Your task to perform on an android device: empty trash in the gmail app Image 0: 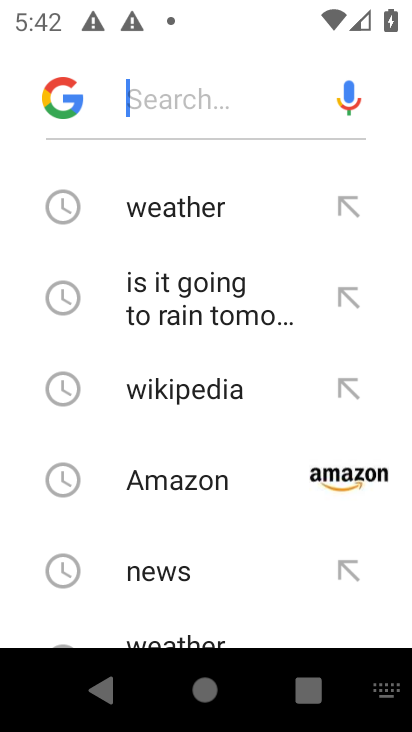
Step 0: press home button
Your task to perform on an android device: empty trash in the gmail app Image 1: 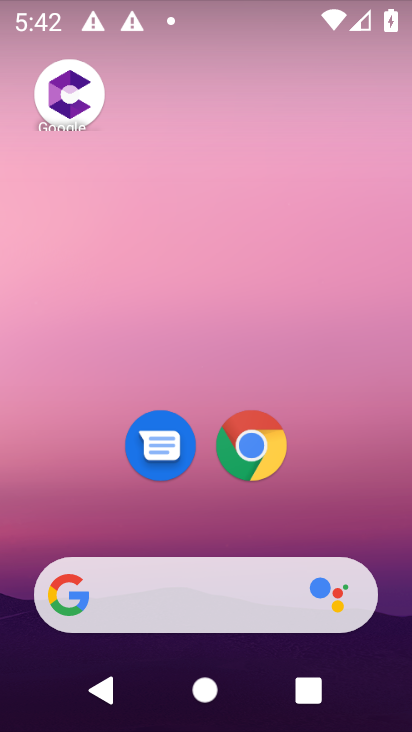
Step 1: click (213, 46)
Your task to perform on an android device: empty trash in the gmail app Image 2: 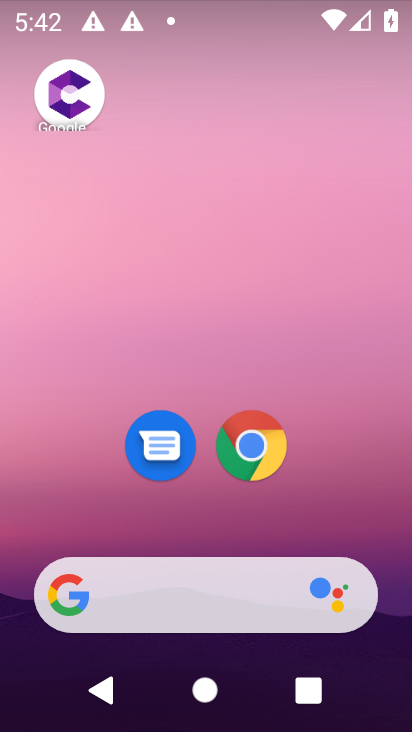
Step 2: drag from (209, 389) to (212, 106)
Your task to perform on an android device: empty trash in the gmail app Image 3: 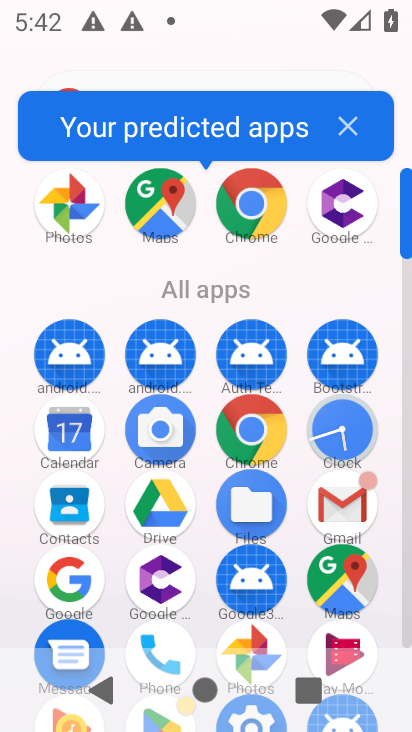
Step 3: click (363, 504)
Your task to perform on an android device: empty trash in the gmail app Image 4: 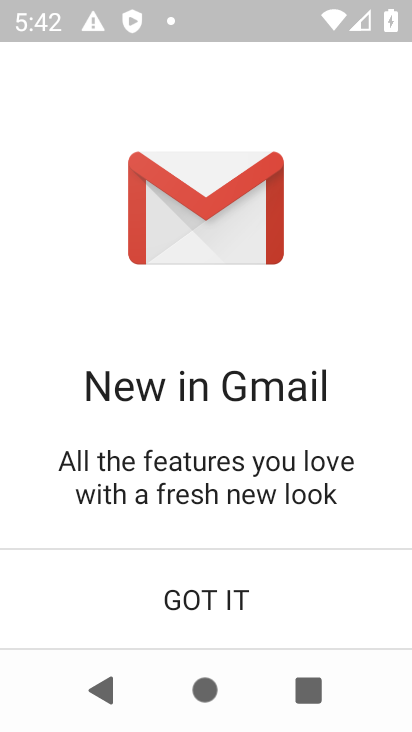
Step 4: click (270, 583)
Your task to perform on an android device: empty trash in the gmail app Image 5: 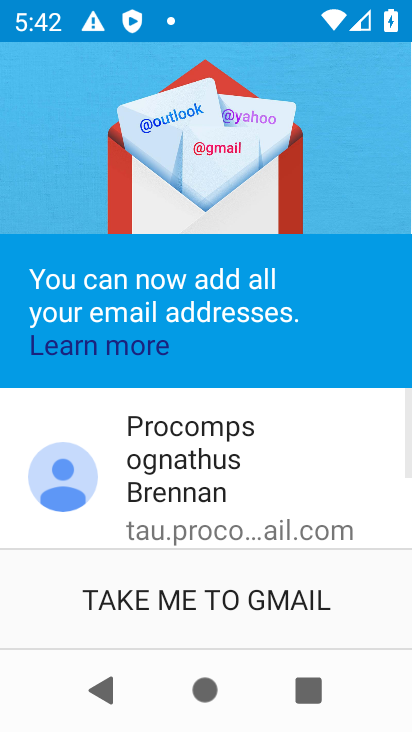
Step 5: click (270, 583)
Your task to perform on an android device: empty trash in the gmail app Image 6: 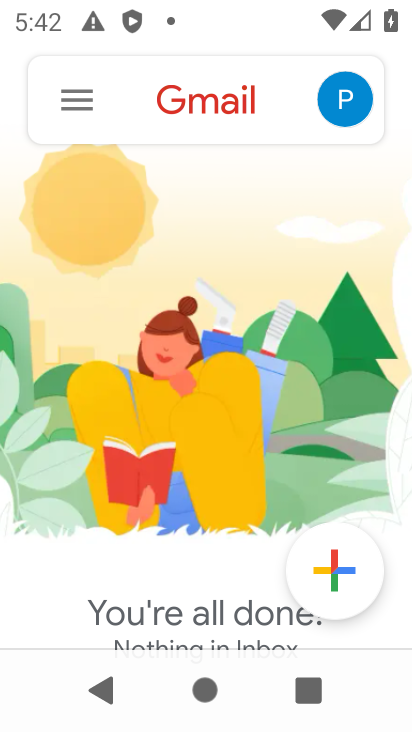
Step 6: click (74, 100)
Your task to perform on an android device: empty trash in the gmail app Image 7: 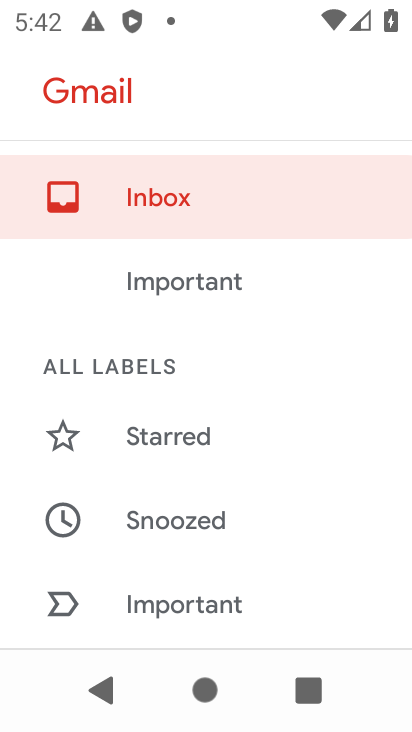
Step 7: drag from (235, 540) to (248, 173)
Your task to perform on an android device: empty trash in the gmail app Image 8: 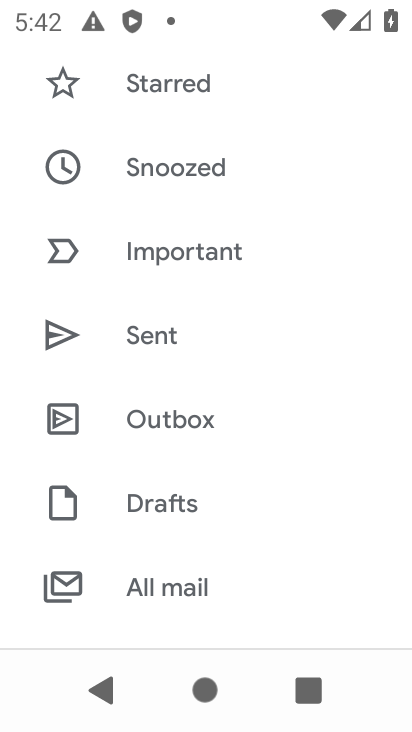
Step 8: drag from (224, 542) to (253, 170)
Your task to perform on an android device: empty trash in the gmail app Image 9: 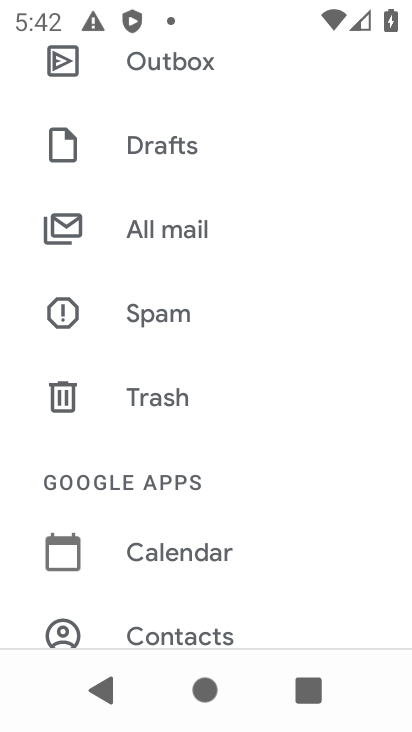
Step 9: click (175, 393)
Your task to perform on an android device: empty trash in the gmail app Image 10: 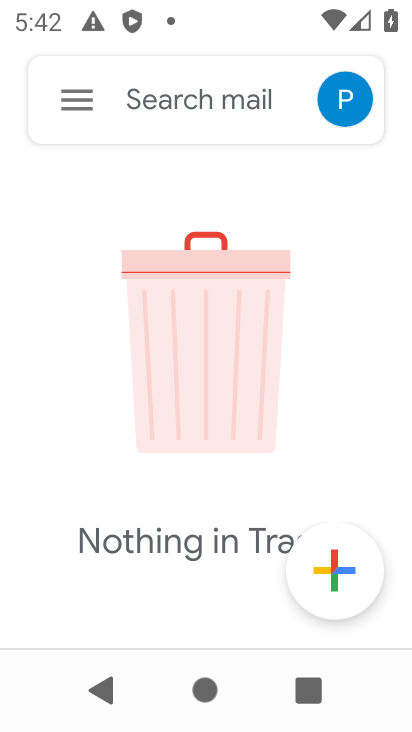
Step 10: task complete